Your task to perform on an android device: Open Youtube and go to "Your channel" Image 0: 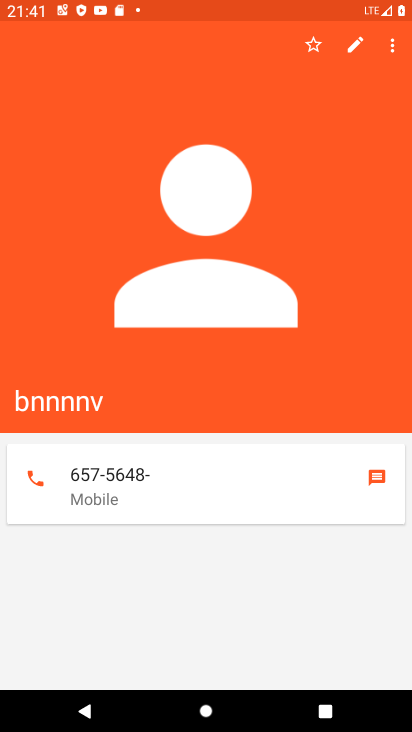
Step 0: press home button
Your task to perform on an android device: Open Youtube and go to "Your channel" Image 1: 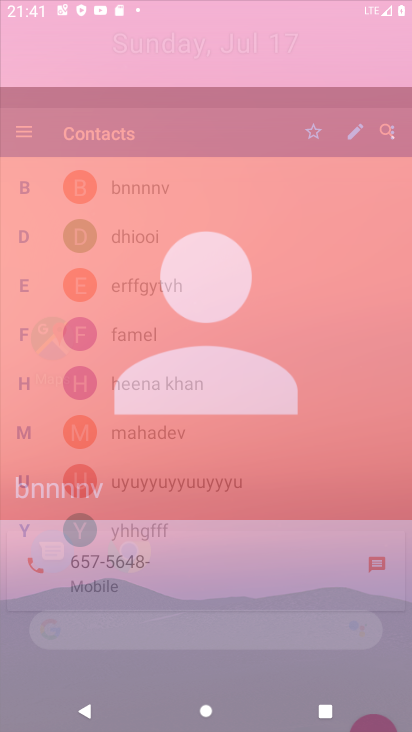
Step 1: drag from (231, 608) to (259, 4)
Your task to perform on an android device: Open Youtube and go to "Your channel" Image 2: 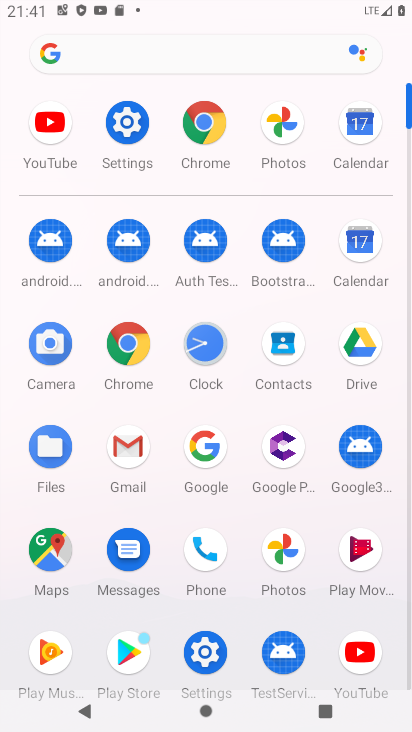
Step 2: click (53, 158)
Your task to perform on an android device: Open Youtube and go to "Your channel" Image 3: 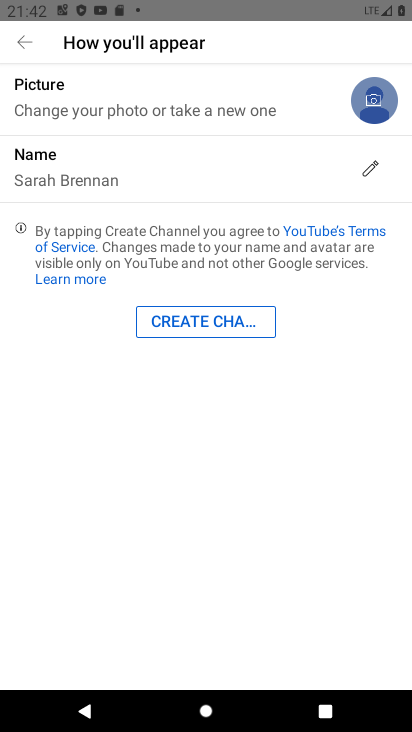
Step 3: click (24, 40)
Your task to perform on an android device: Open Youtube and go to "Your channel" Image 4: 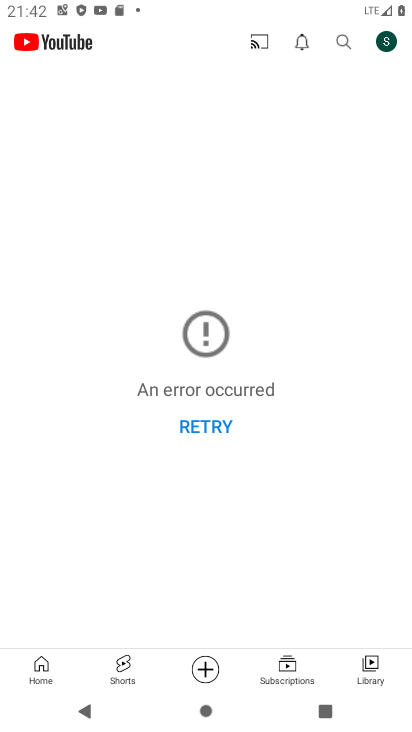
Step 4: click (386, 38)
Your task to perform on an android device: Open Youtube and go to "Your channel" Image 5: 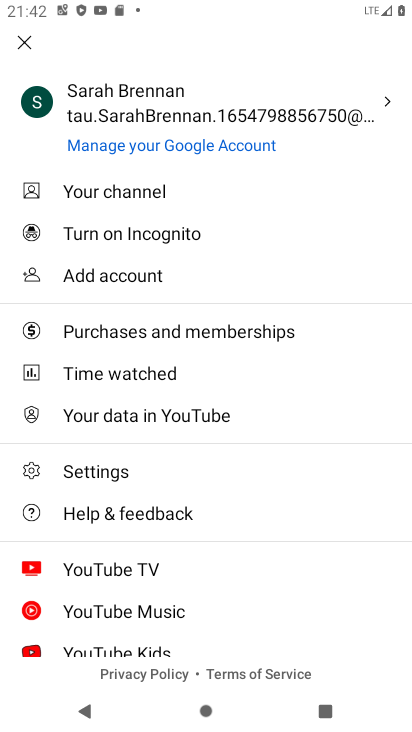
Step 5: drag from (185, 480) to (173, 364)
Your task to perform on an android device: Open Youtube and go to "Your channel" Image 6: 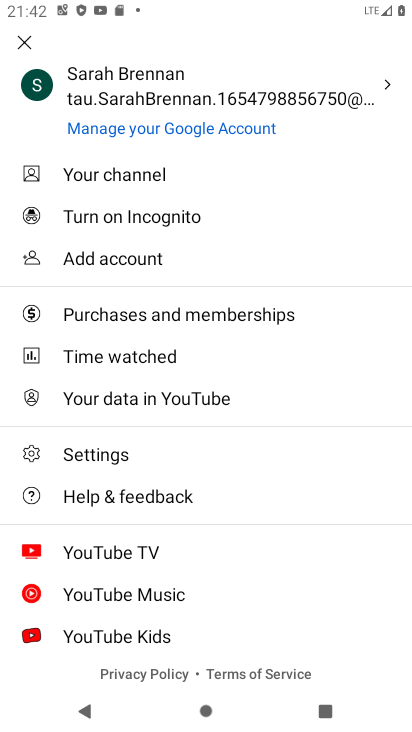
Step 6: click (136, 170)
Your task to perform on an android device: Open Youtube and go to "Your channel" Image 7: 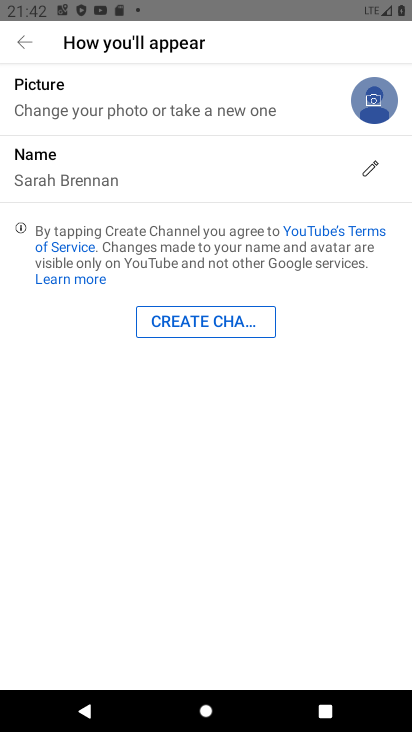
Step 7: task complete